Your task to perform on an android device: Show me the alarms in the clock app Image 0: 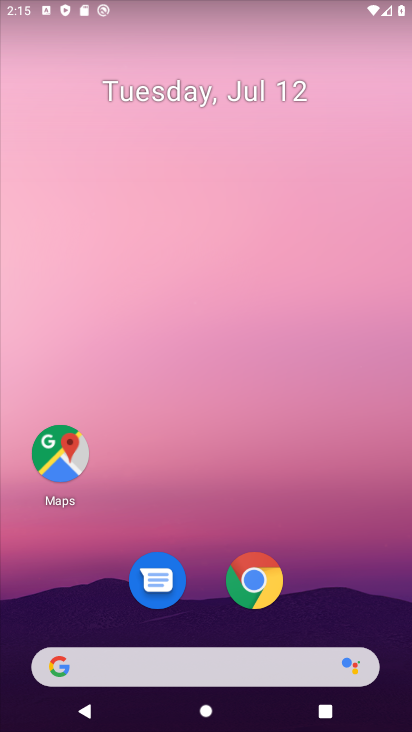
Step 0: click (301, 54)
Your task to perform on an android device: Show me the alarms in the clock app Image 1: 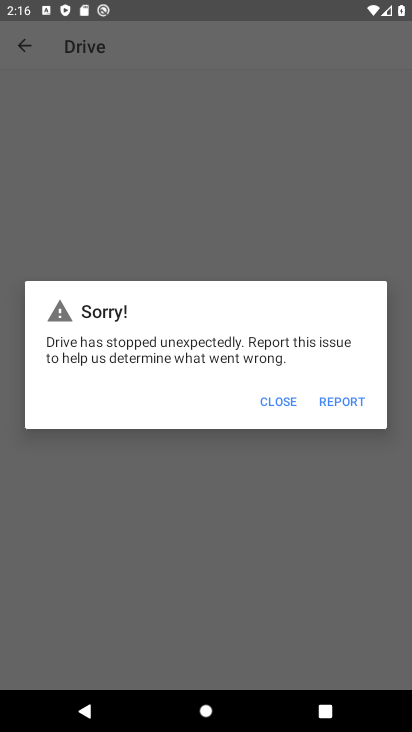
Step 1: press home button
Your task to perform on an android device: Show me the alarms in the clock app Image 2: 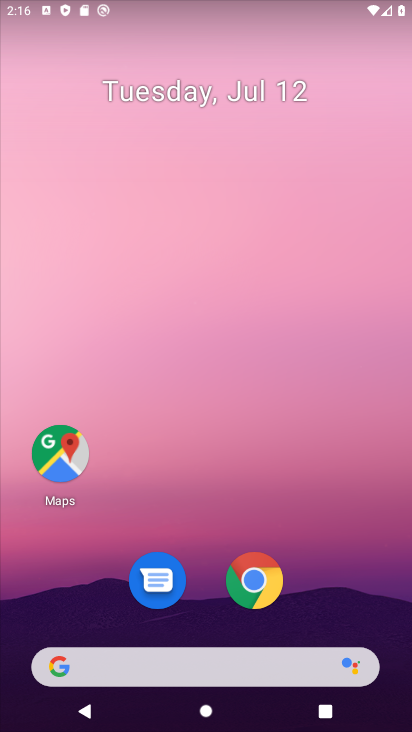
Step 2: drag from (169, 311) to (231, 0)
Your task to perform on an android device: Show me the alarms in the clock app Image 3: 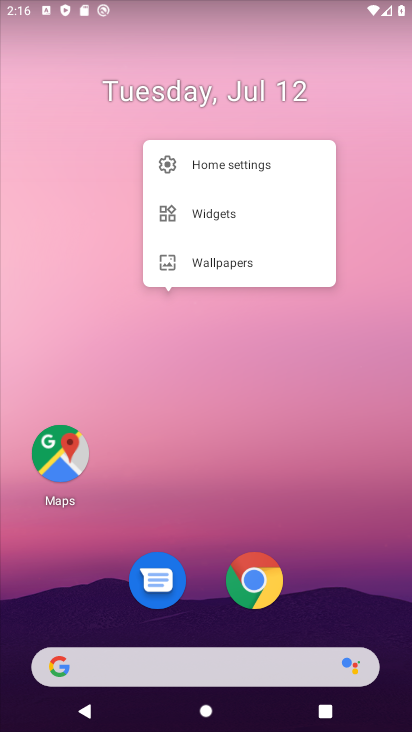
Step 3: drag from (202, 614) to (223, 82)
Your task to perform on an android device: Show me the alarms in the clock app Image 4: 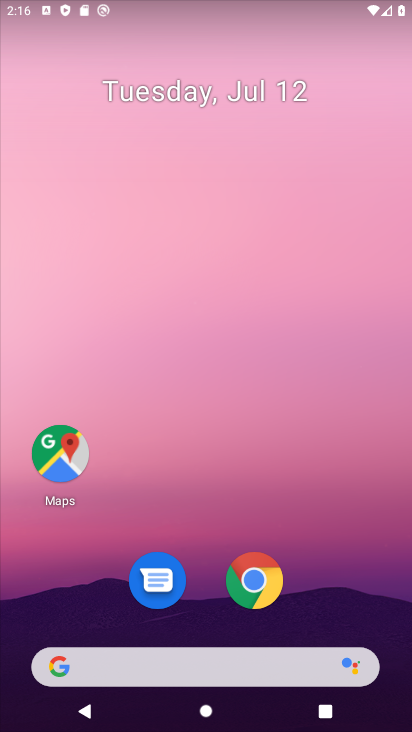
Step 4: drag from (205, 617) to (231, 255)
Your task to perform on an android device: Show me the alarms in the clock app Image 5: 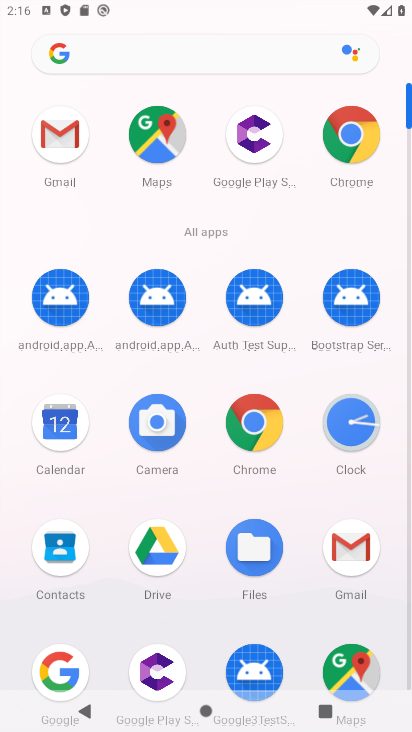
Step 5: click (356, 436)
Your task to perform on an android device: Show me the alarms in the clock app Image 6: 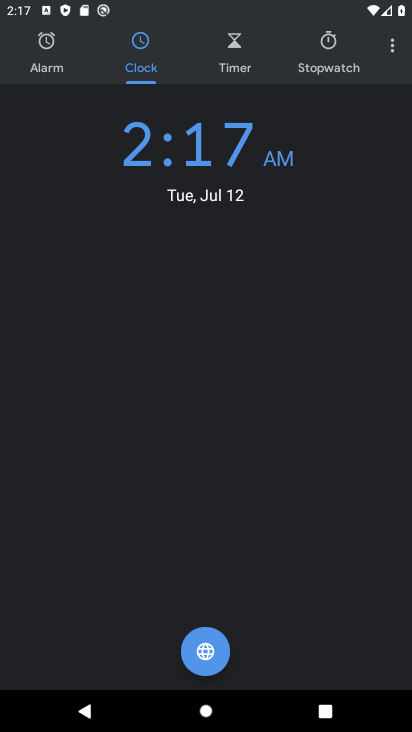
Step 6: click (61, 61)
Your task to perform on an android device: Show me the alarms in the clock app Image 7: 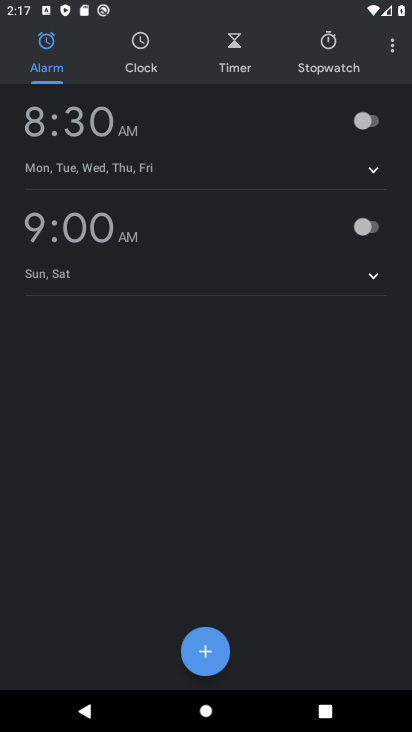
Step 7: task complete